Your task to perform on an android device: see tabs open on other devices in the chrome app Image 0: 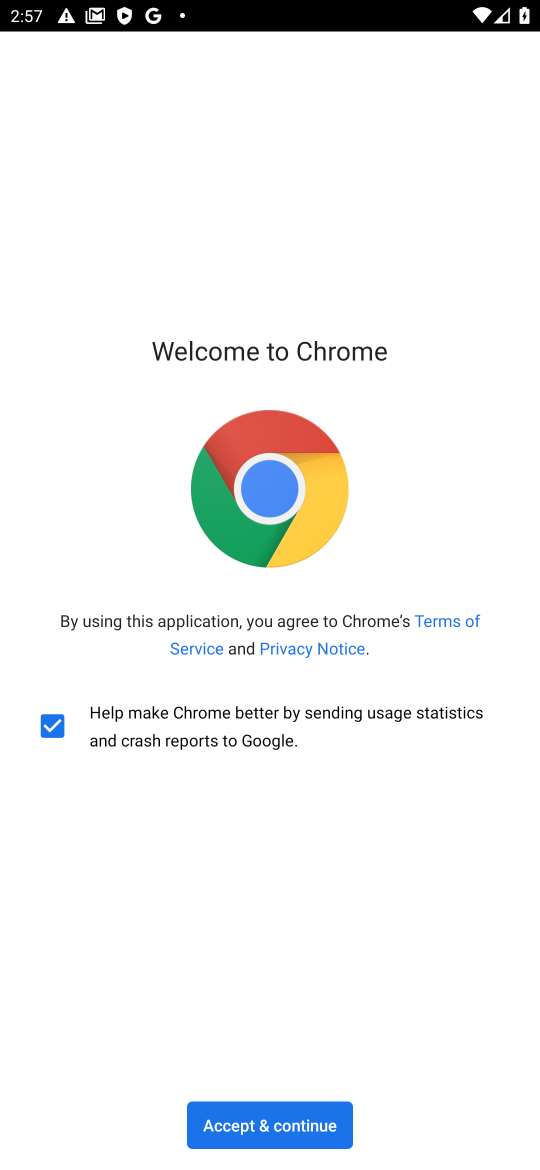
Step 0: click (277, 1120)
Your task to perform on an android device: see tabs open on other devices in the chrome app Image 1: 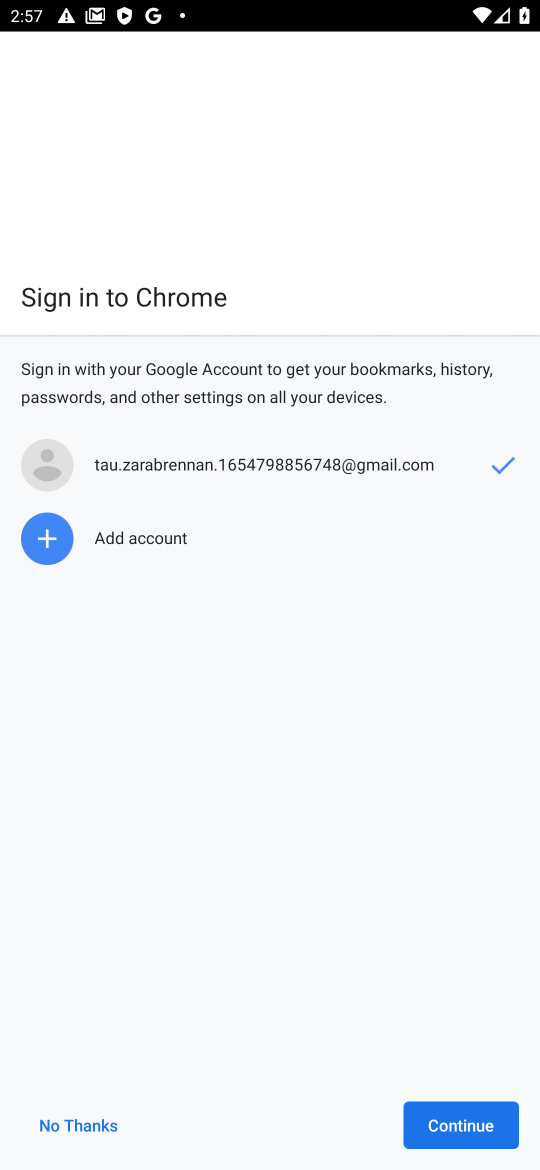
Step 1: click (433, 1112)
Your task to perform on an android device: see tabs open on other devices in the chrome app Image 2: 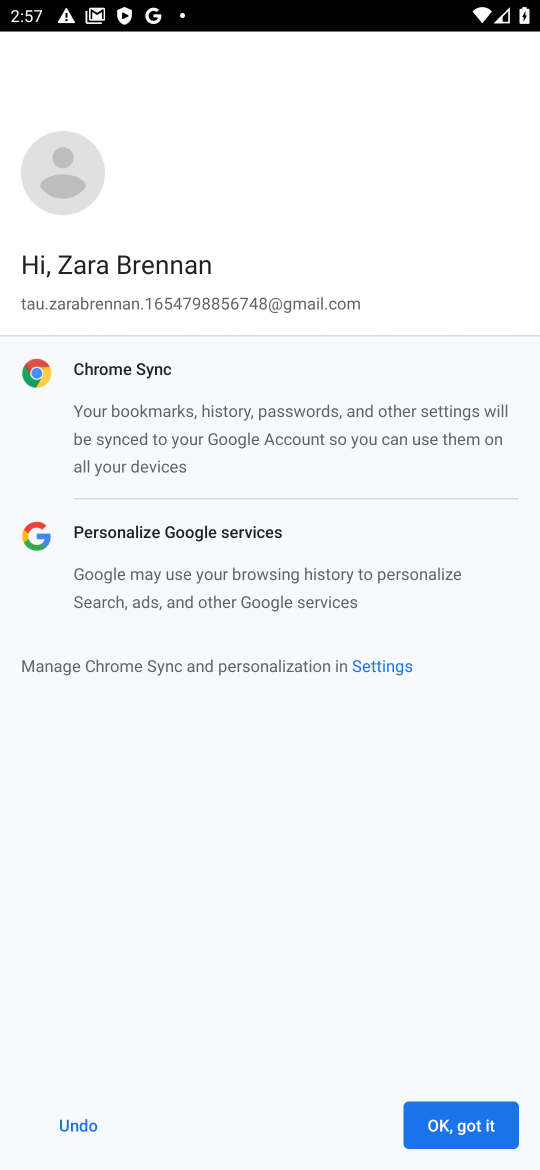
Step 2: click (453, 1112)
Your task to perform on an android device: see tabs open on other devices in the chrome app Image 3: 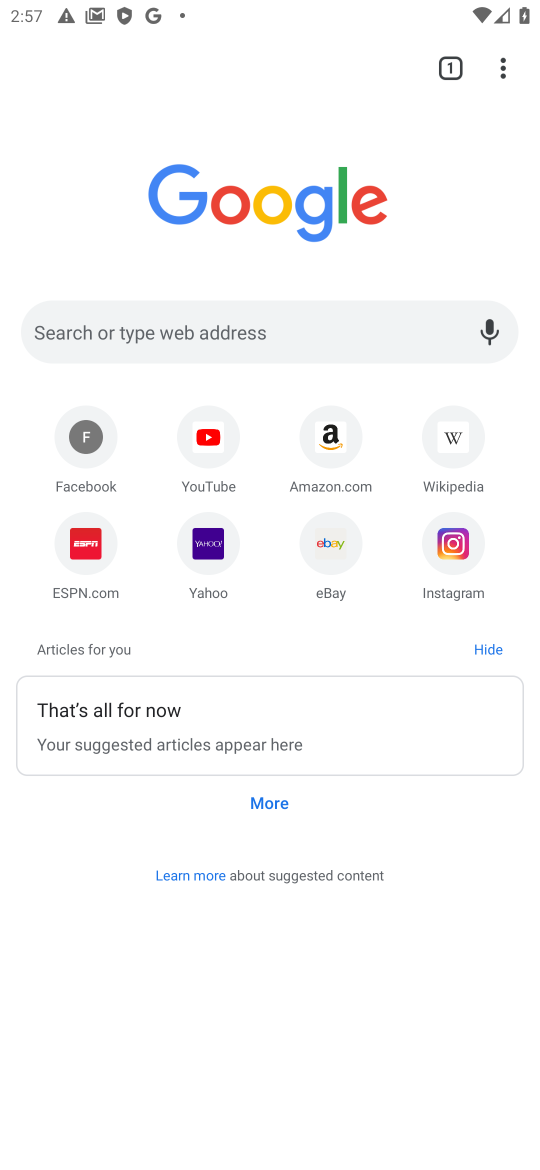
Step 3: click (504, 69)
Your task to perform on an android device: see tabs open on other devices in the chrome app Image 4: 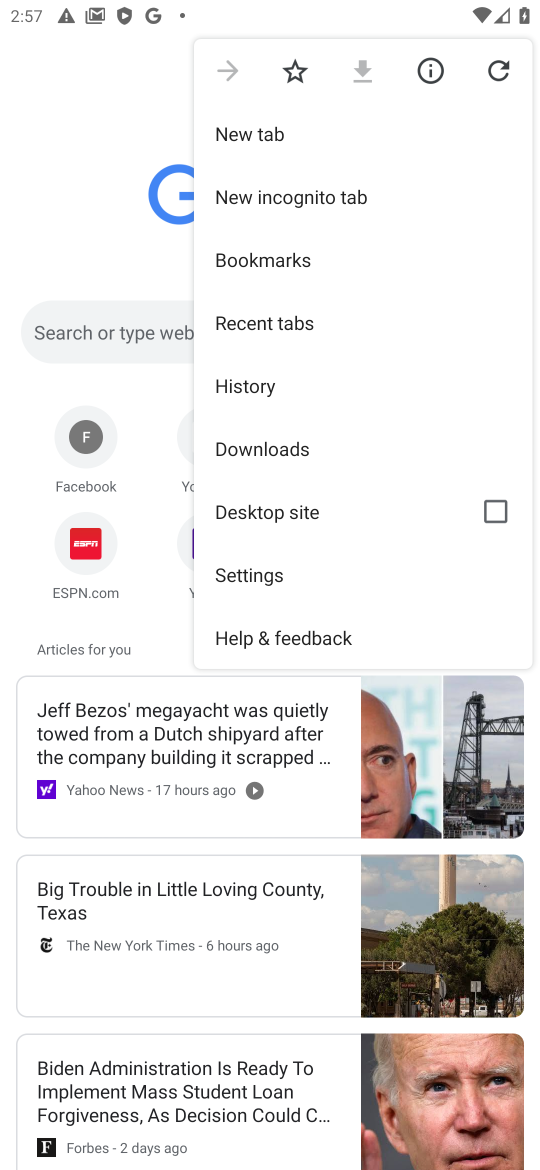
Step 4: click (275, 130)
Your task to perform on an android device: see tabs open on other devices in the chrome app Image 5: 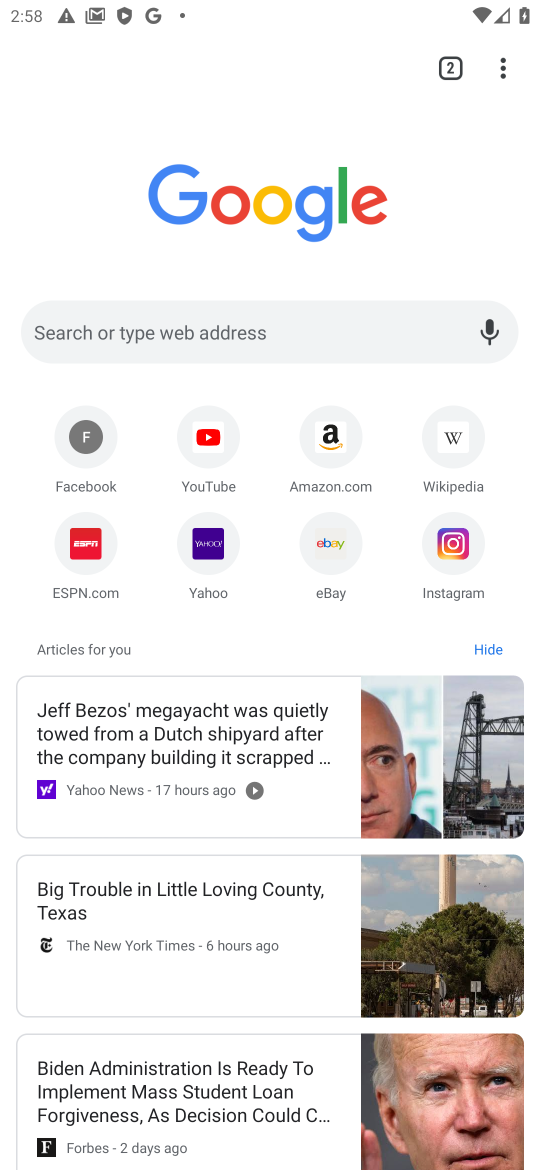
Step 5: task complete